Your task to perform on an android device: Open Amazon Image 0: 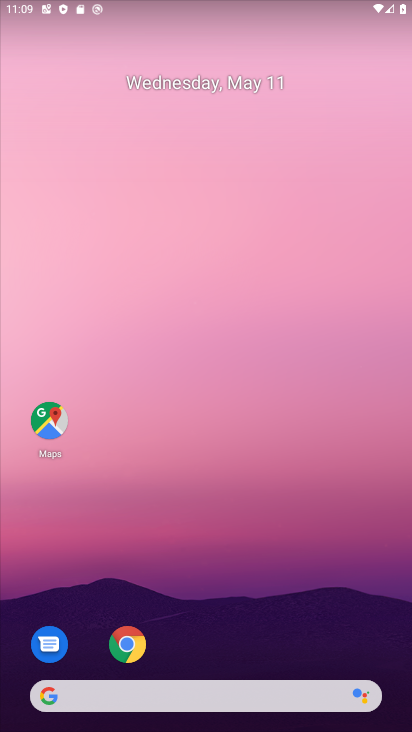
Step 0: drag from (295, 608) to (218, 167)
Your task to perform on an android device: Open Amazon Image 1: 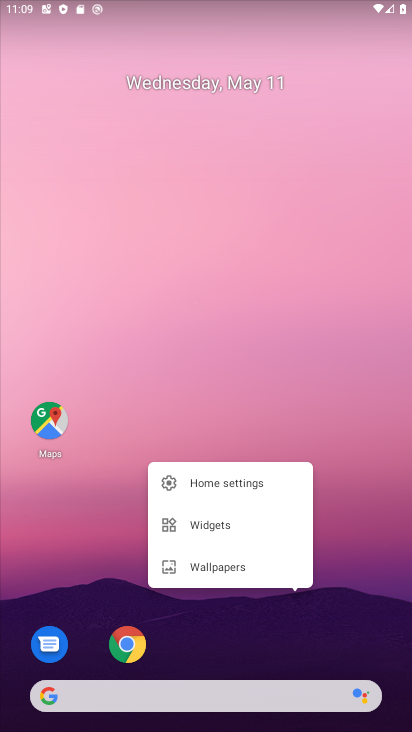
Step 1: click (352, 631)
Your task to perform on an android device: Open Amazon Image 2: 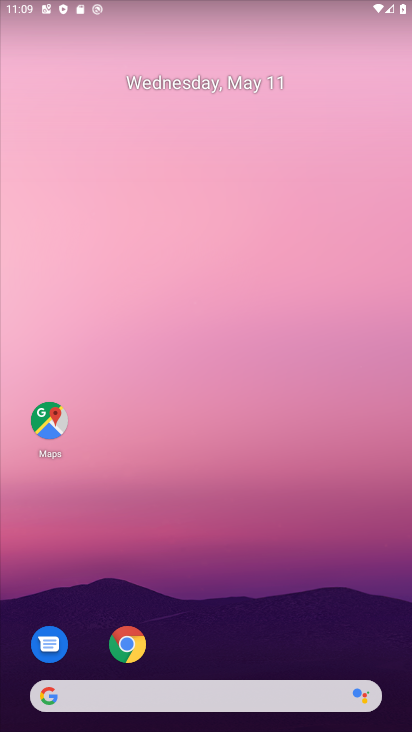
Step 2: drag from (352, 631) to (261, 89)
Your task to perform on an android device: Open Amazon Image 3: 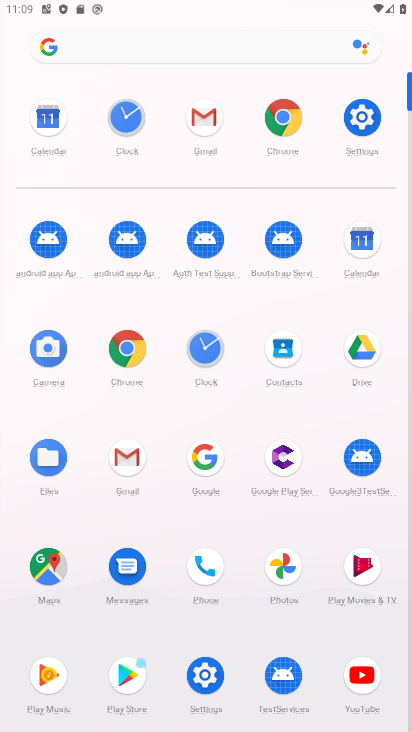
Step 3: click (278, 127)
Your task to perform on an android device: Open Amazon Image 4: 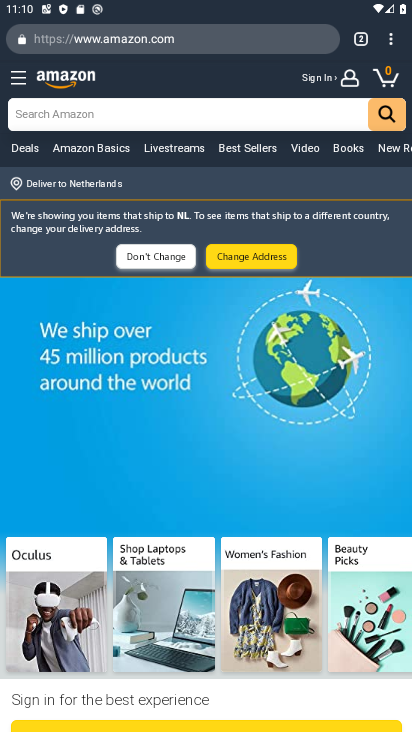
Step 4: task complete